Your task to perform on an android device: Empty the shopping cart on bestbuy.com. Image 0: 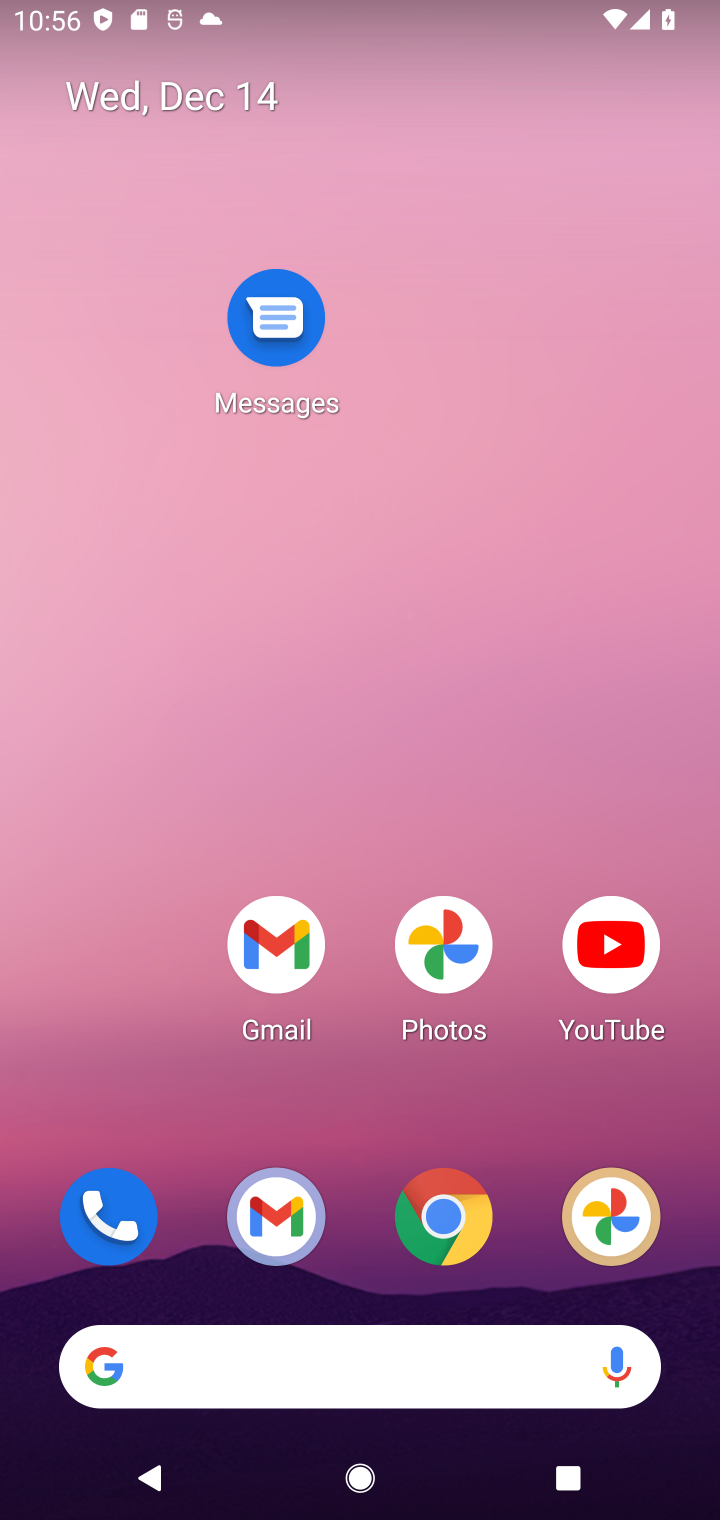
Step 0: drag from (401, 968) to (401, 307)
Your task to perform on an android device: Empty the shopping cart on bestbuy.com. Image 1: 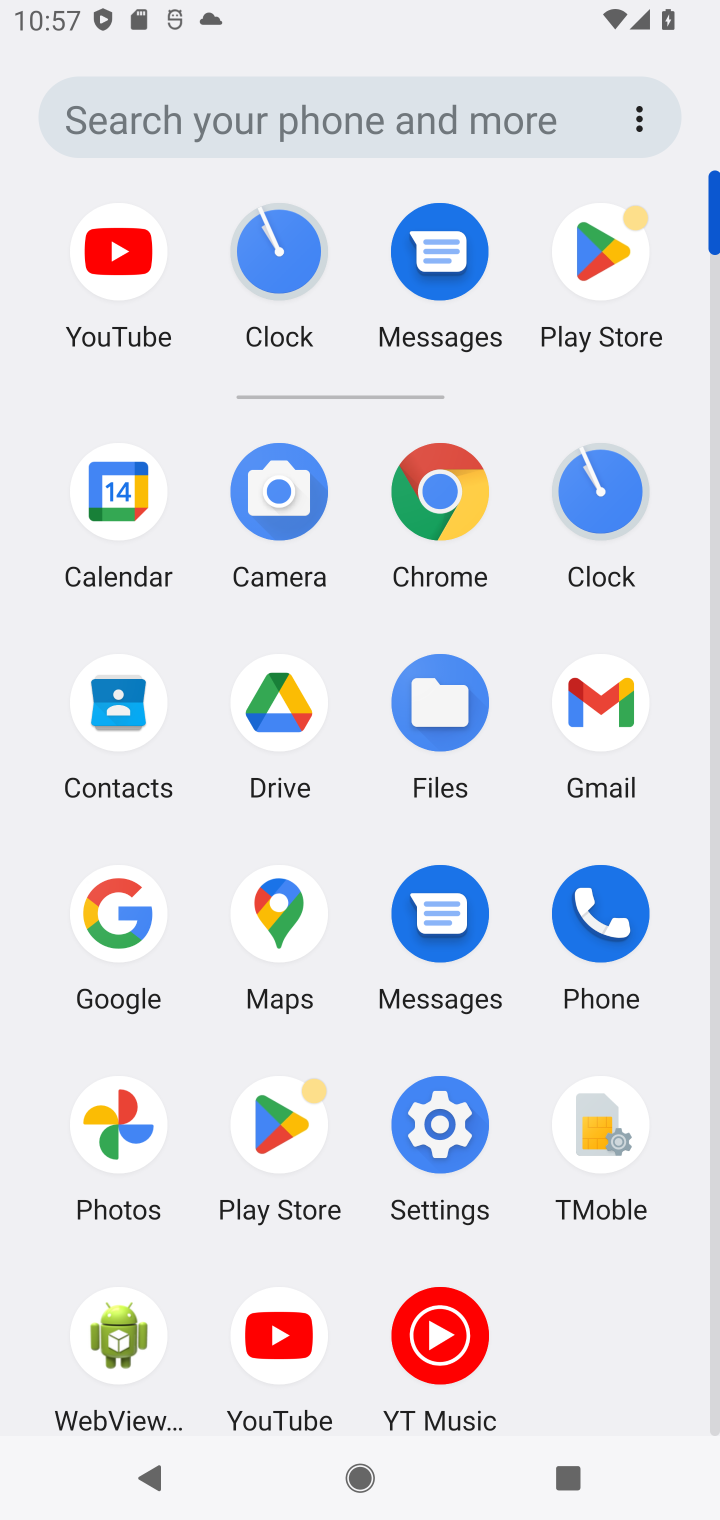
Step 1: click (115, 923)
Your task to perform on an android device: Empty the shopping cart on bestbuy.com. Image 2: 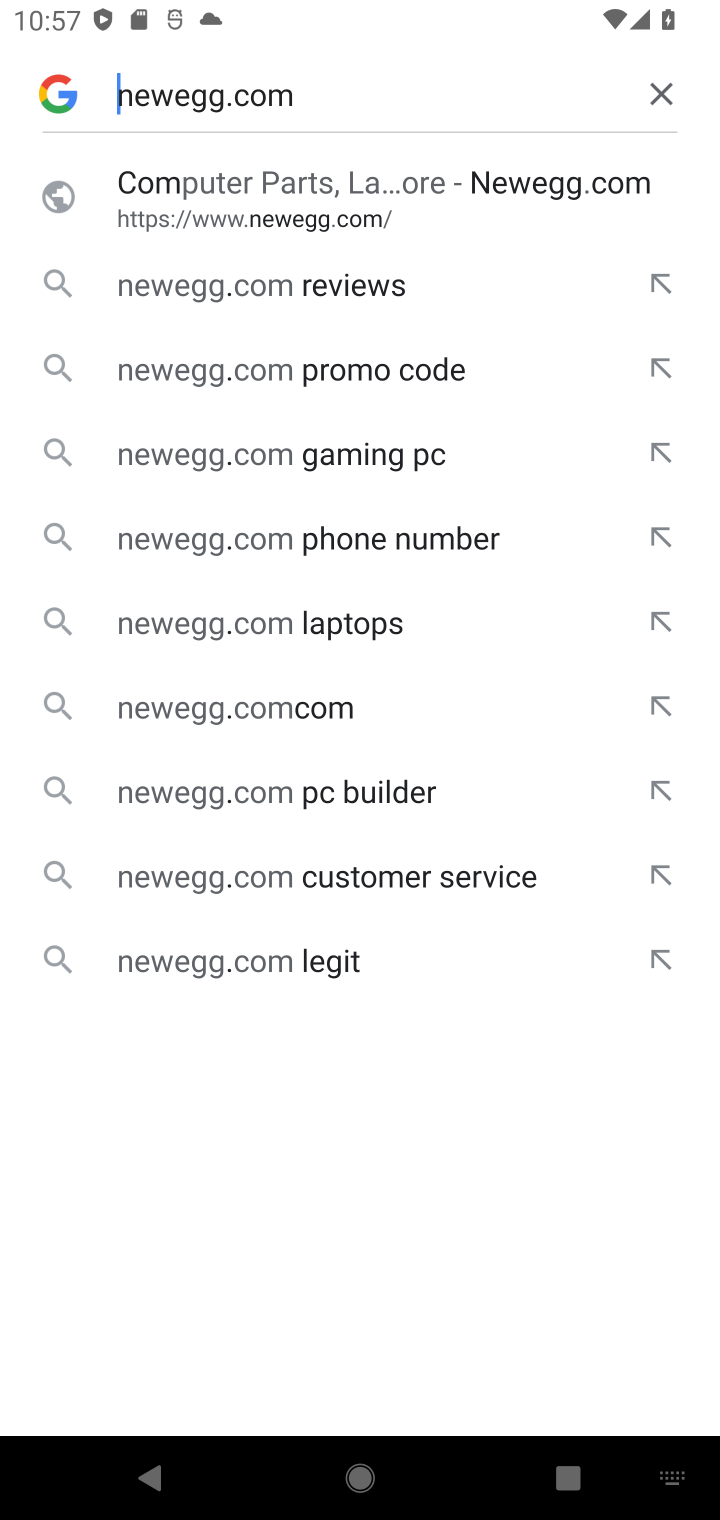
Step 2: click (282, 90)
Your task to perform on an android device: Empty the shopping cart on bestbuy.com. Image 3: 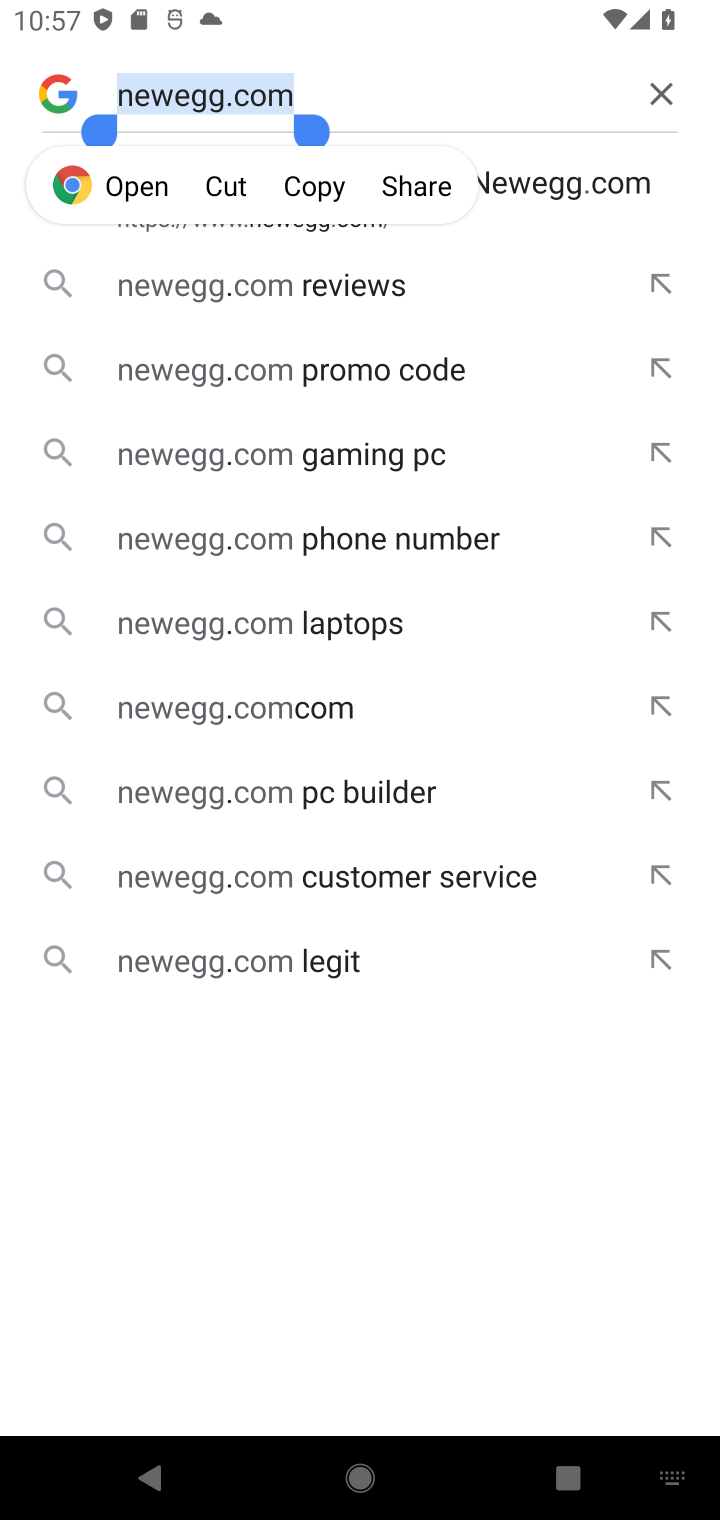
Step 3: click (660, 104)
Your task to perform on an android device: Empty the shopping cart on bestbuy.com. Image 4: 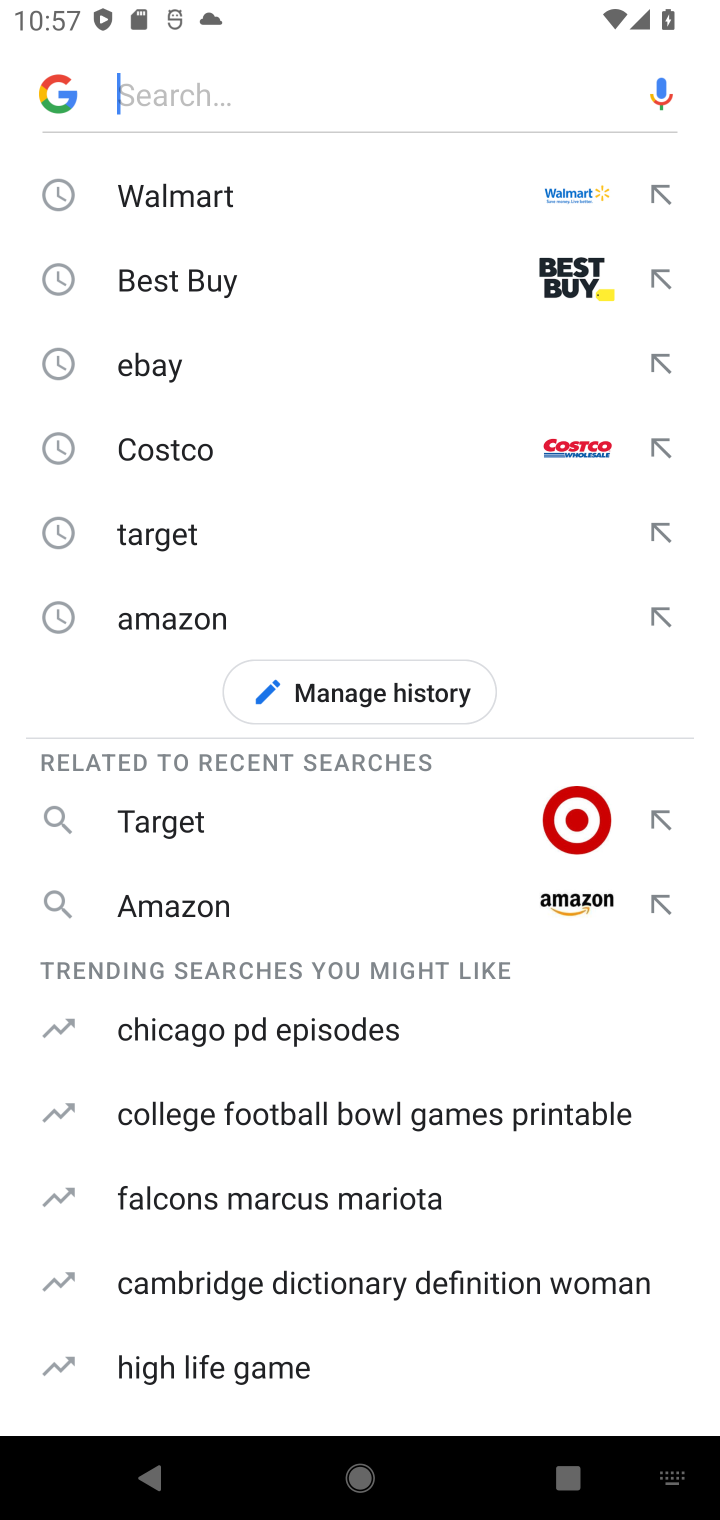
Step 4: click (174, 284)
Your task to perform on an android device: Empty the shopping cart on bestbuy.com. Image 5: 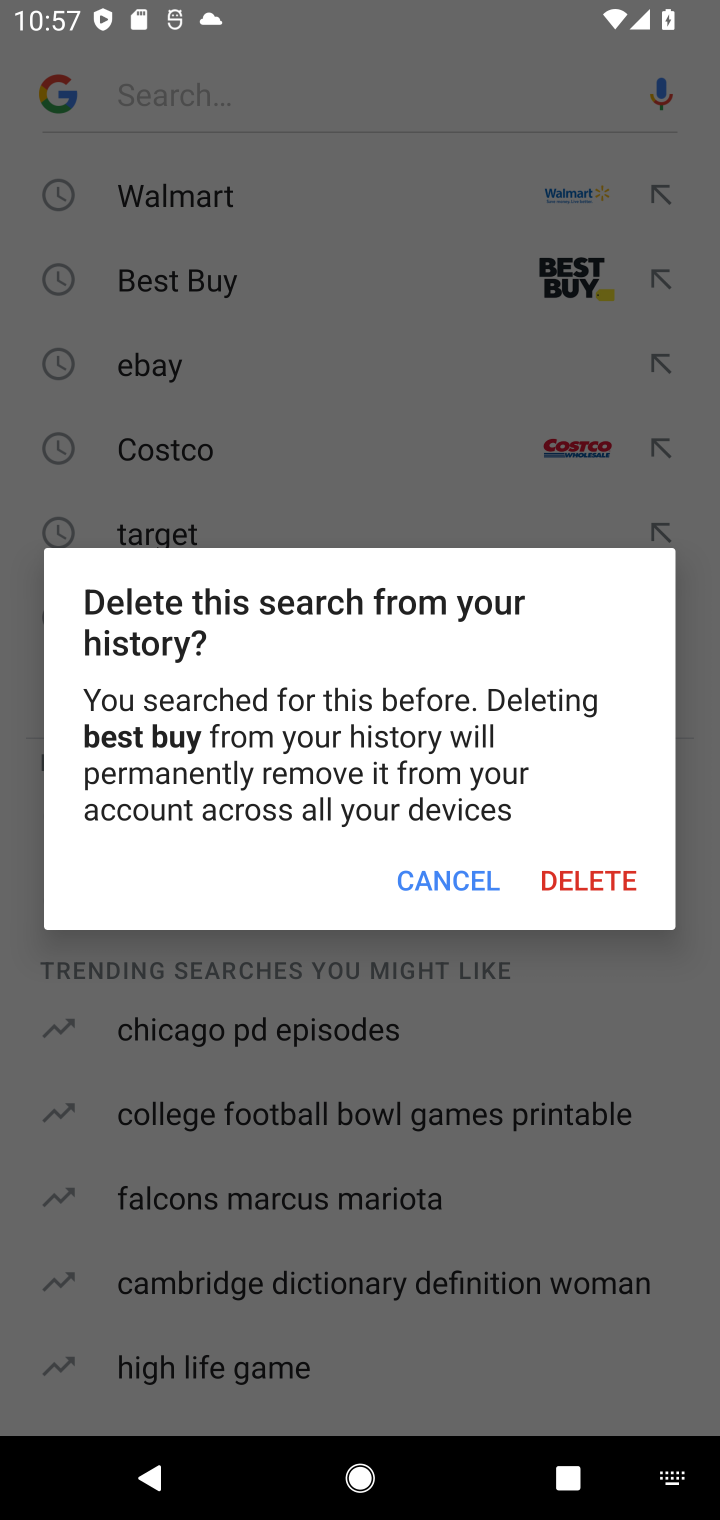
Step 5: click (428, 898)
Your task to perform on an android device: Empty the shopping cart on bestbuy.com. Image 6: 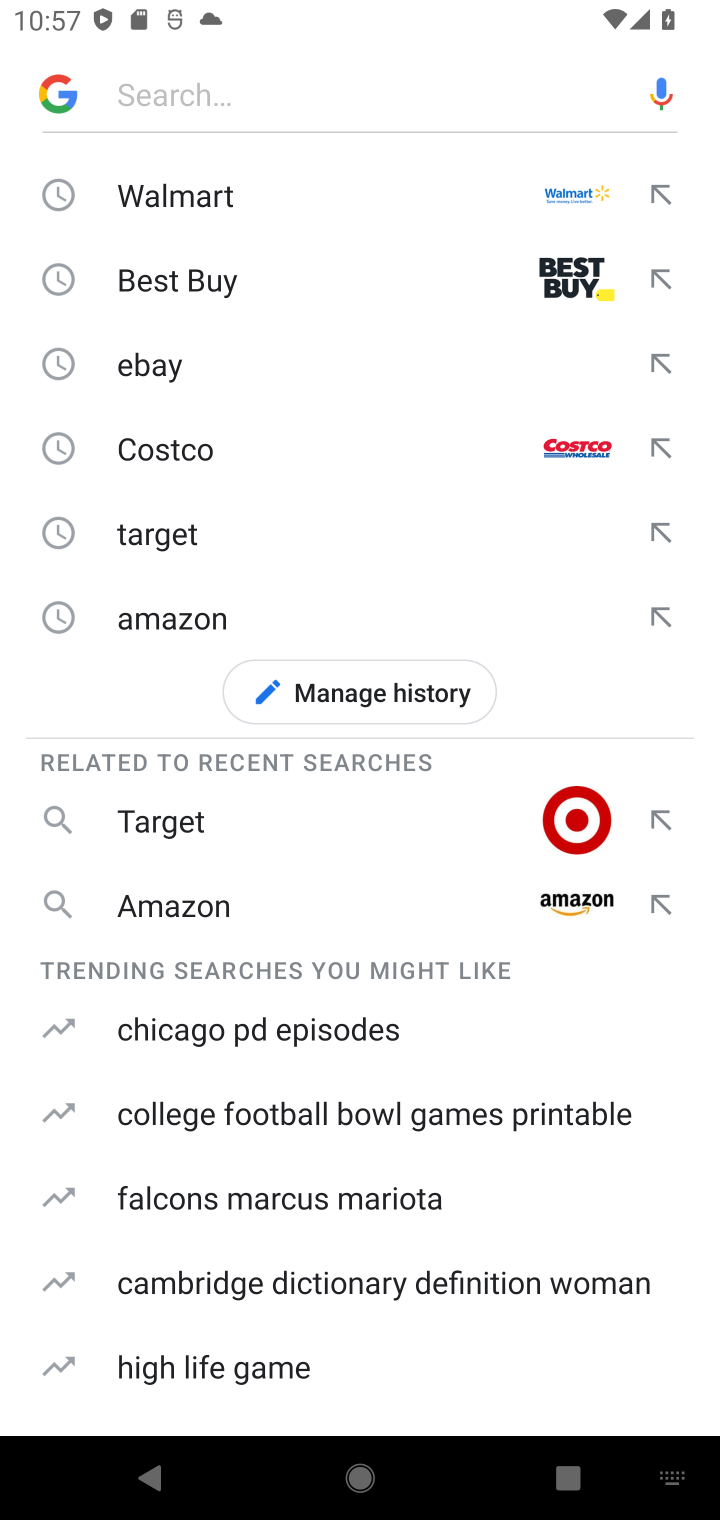
Step 6: click (182, 270)
Your task to perform on an android device: Empty the shopping cart on bestbuy.com. Image 7: 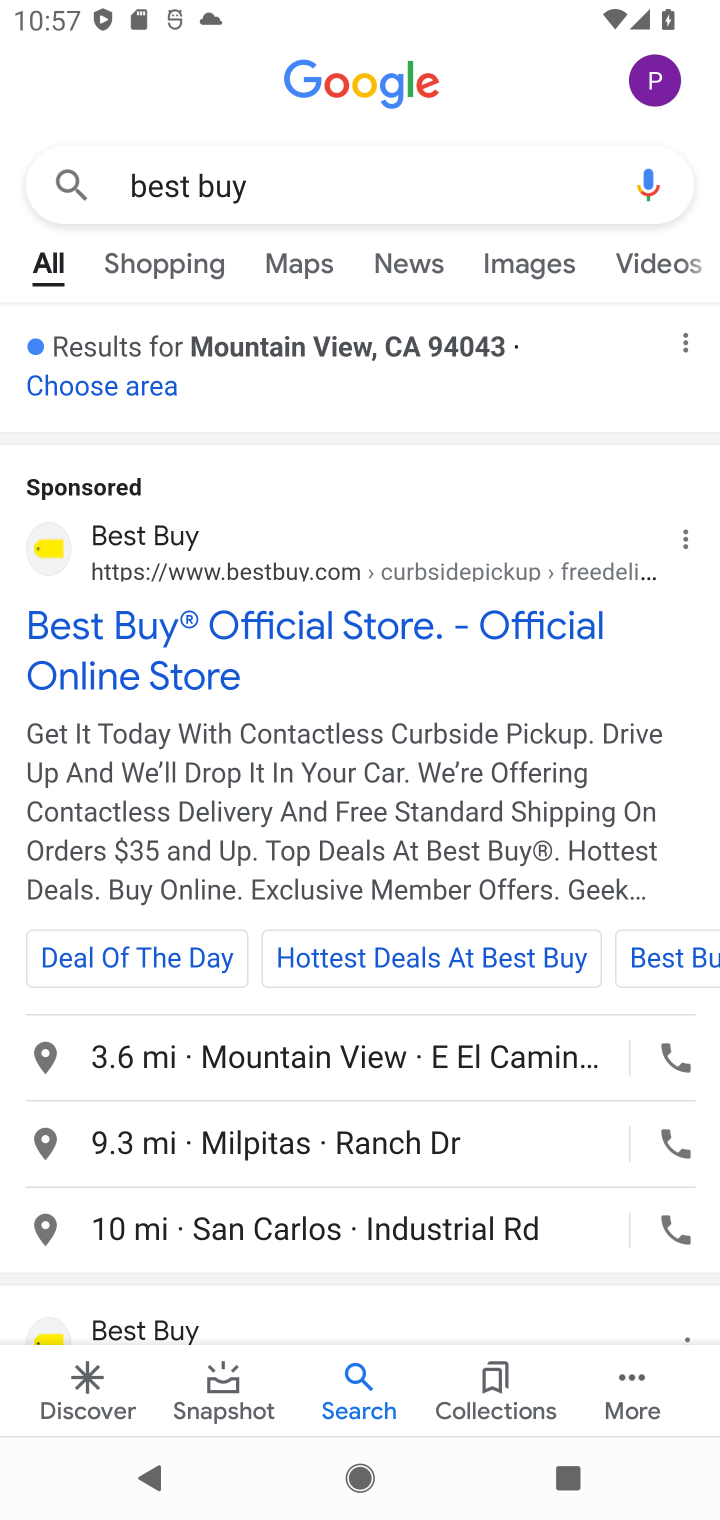
Step 7: click (189, 655)
Your task to perform on an android device: Empty the shopping cart on bestbuy.com. Image 8: 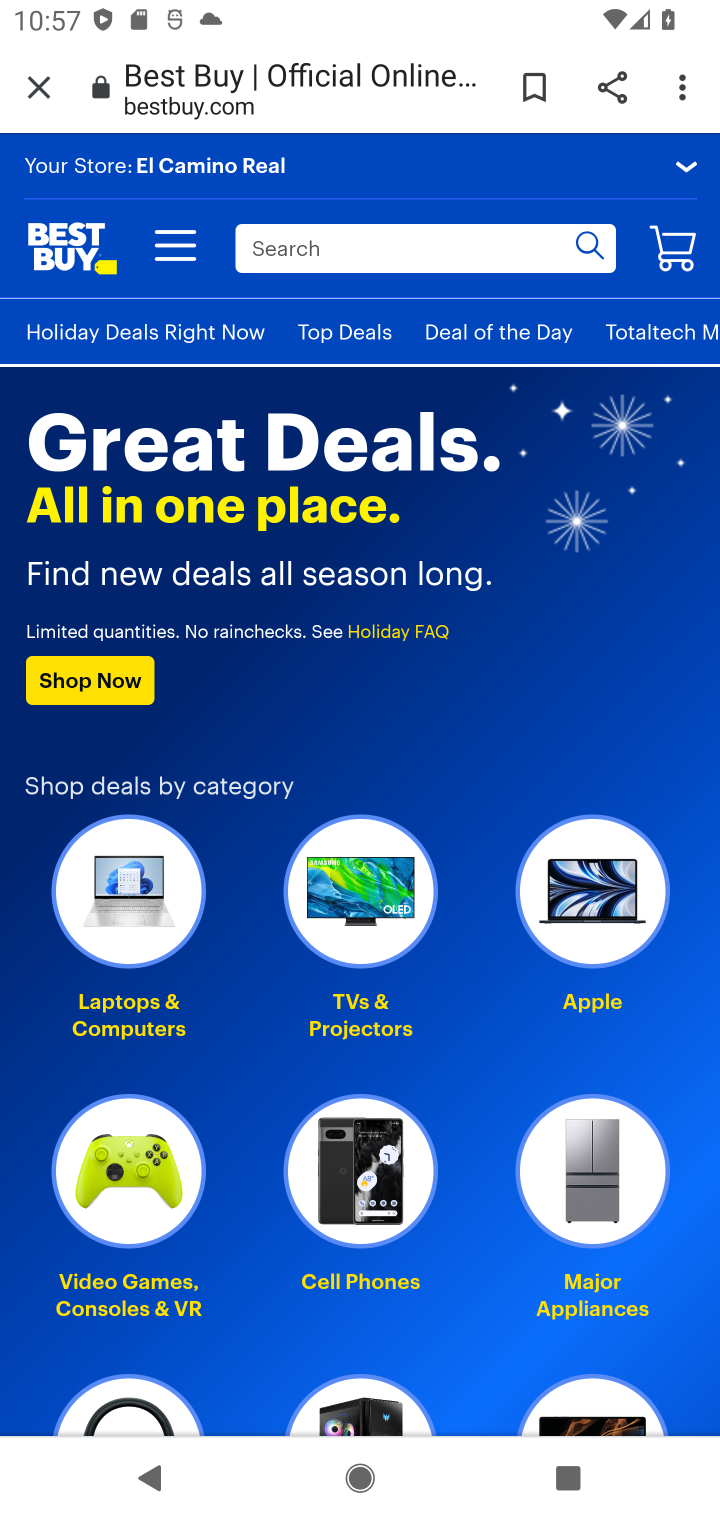
Step 8: click (681, 251)
Your task to perform on an android device: Empty the shopping cart on bestbuy.com. Image 9: 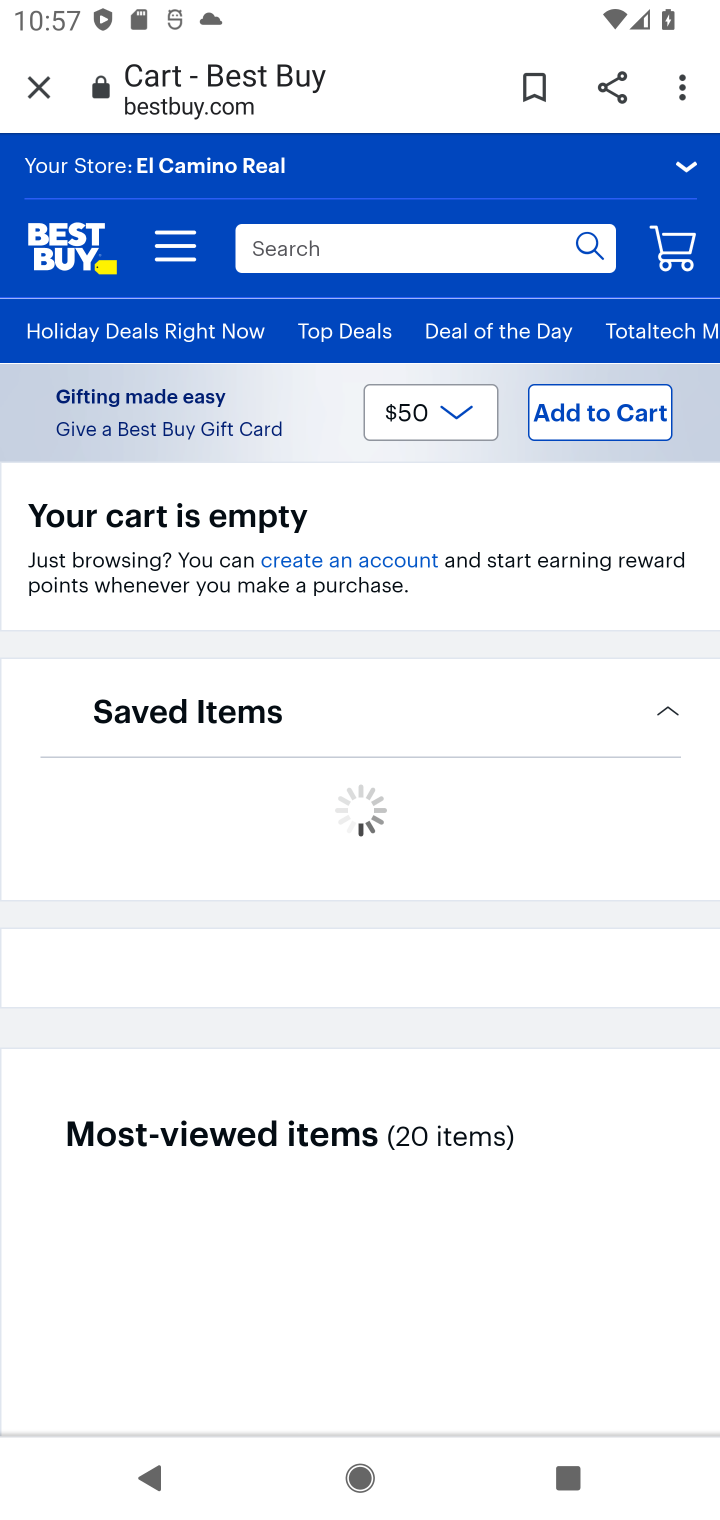
Step 9: task complete